Your task to perform on an android device: Search for seafood restaurants on Google Maps Image 0: 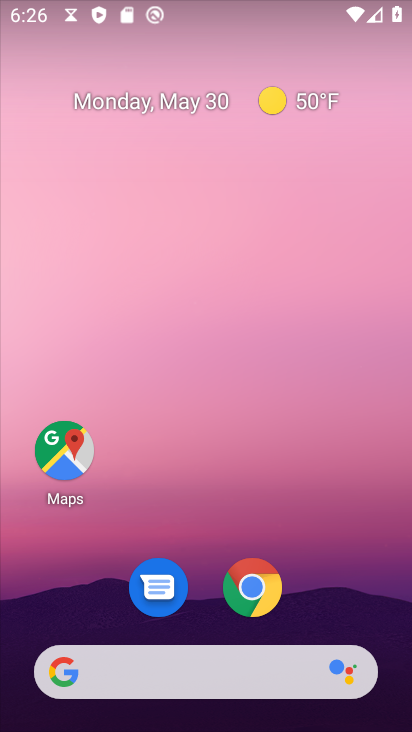
Step 0: drag from (328, 484) to (209, 1)
Your task to perform on an android device: Search for seafood restaurants on Google Maps Image 1: 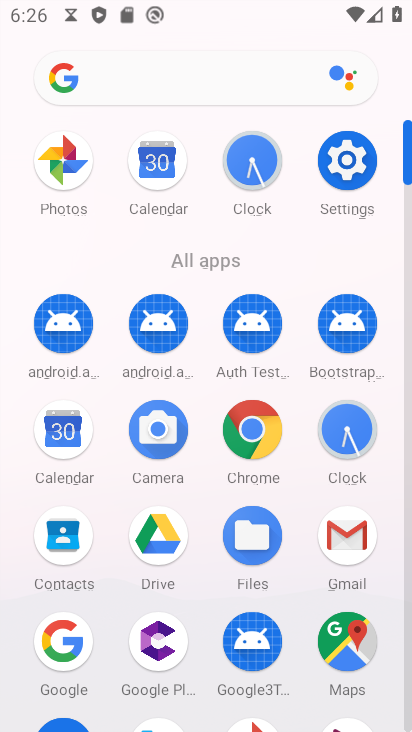
Step 1: drag from (7, 507) to (6, 170)
Your task to perform on an android device: Search for seafood restaurants on Google Maps Image 2: 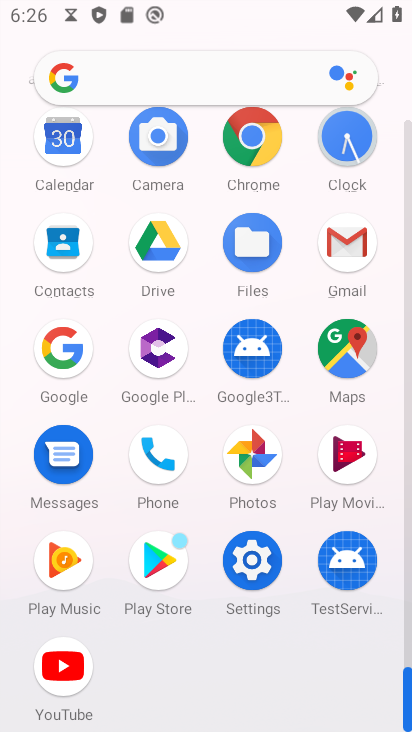
Step 2: click (346, 348)
Your task to perform on an android device: Search for seafood restaurants on Google Maps Image 3: 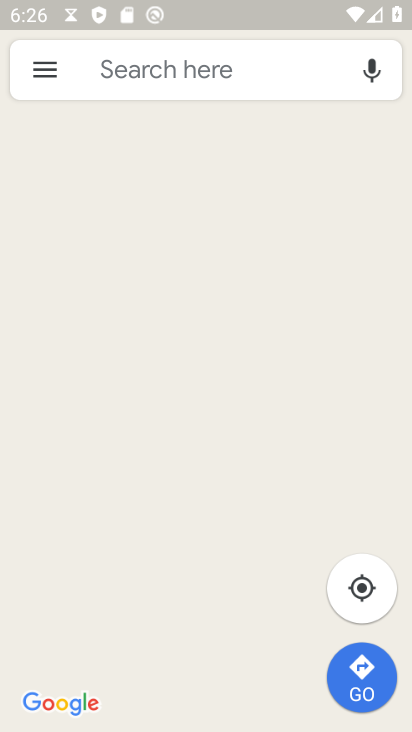
Step 3: click (229, 54)
Your task to perform on an android device: Search for seafood restaurants on Google Maps Image 4: 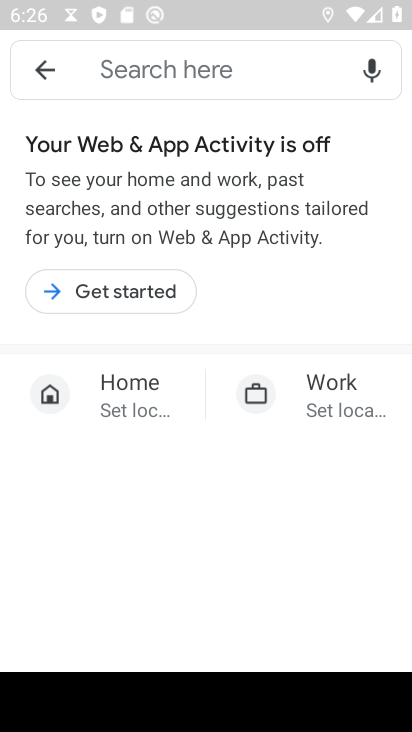
Step 4: click (148, 64)
Your task to perform on an android device: Search for seafood restaurants on Google Maps Image 5: 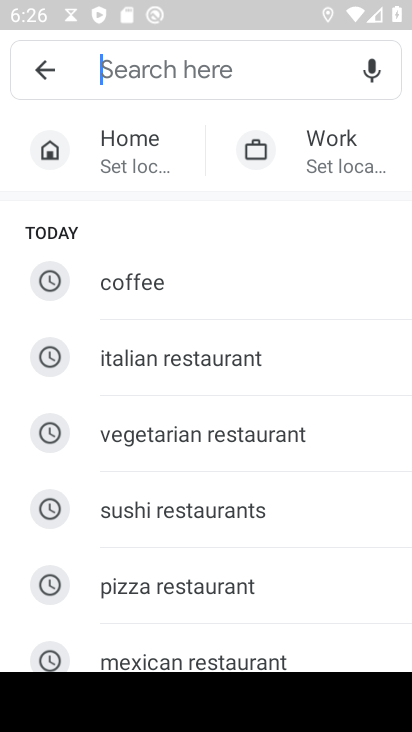
Step 5: type "seafood restaurants "
Your task to perform on an android device: Search for seafood restaurants on Google Maps Image 6: 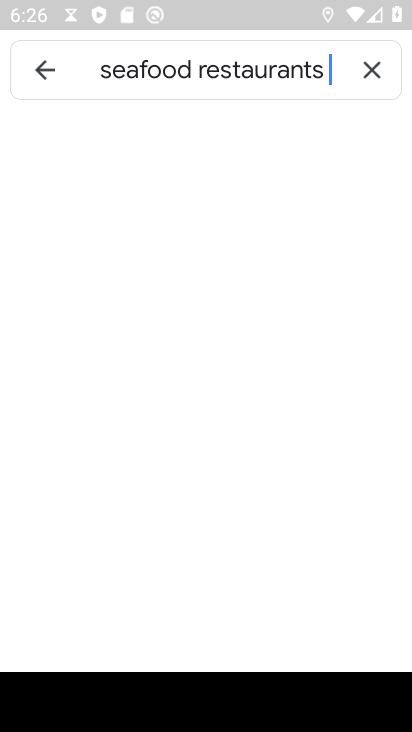
Step 6: type ""
Your task to perform on an android device: Search for seafood restaurants on Google Maps Image 7: 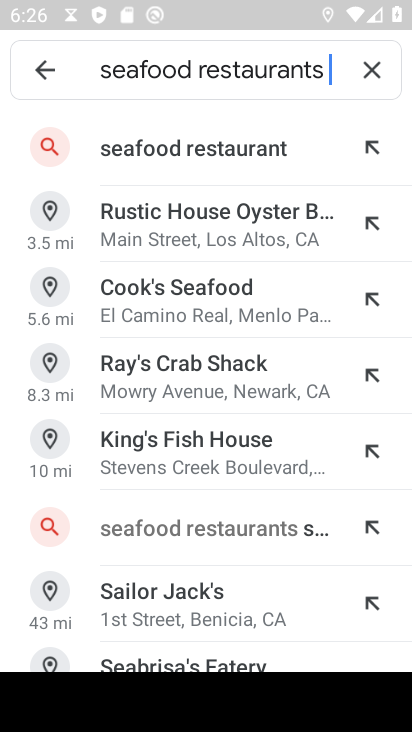
Step 7: click (138, 142)
Your task to perform on an android device: Search for seafood restaurants on Google Maps Image 8: 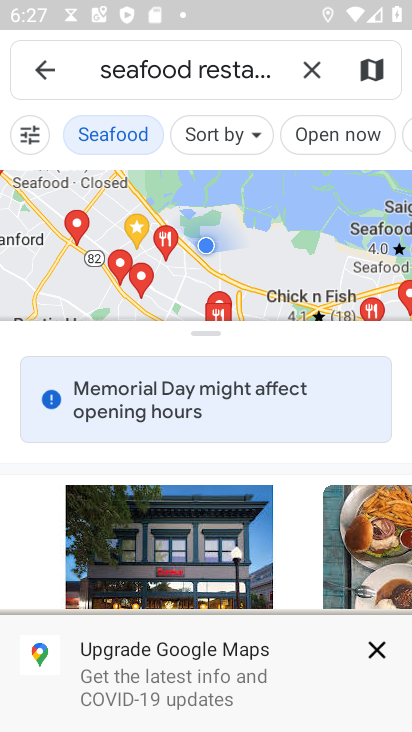
Step 8: task complete